Your task to perform on an android device: Search for seafood restaurants on Google Maps Image 0: 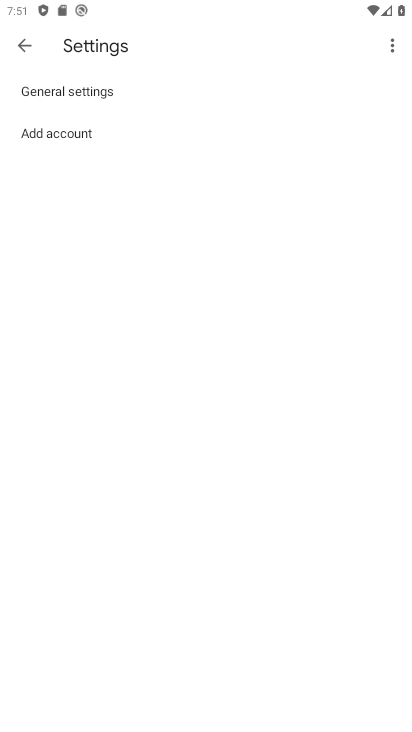
Step 0: press home button
Your task to perform on an android device: Search for seafood restaurants on Google Maps Image 1: 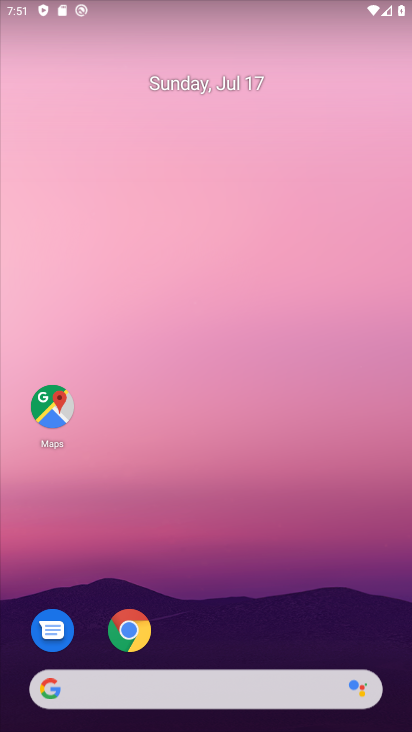
Step 1: click (45, 400)
Your task to perform on an android device: Search for seafood restaurants on Google Maps Image 2: 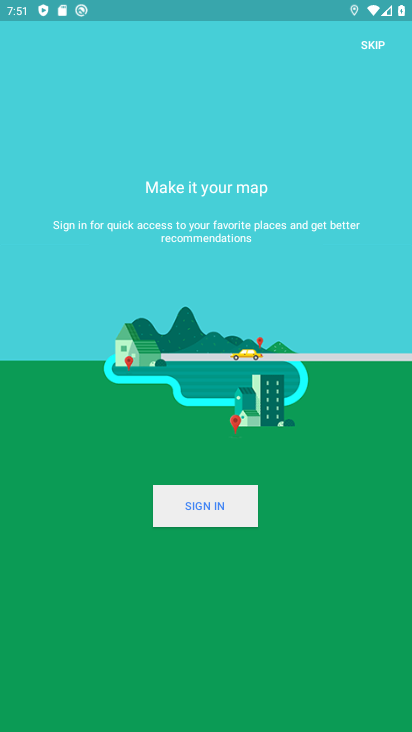
Step 2: click (221, 514)
Your task to perform on an android device: Search for seafood restaurants on Google Maps Image 3: 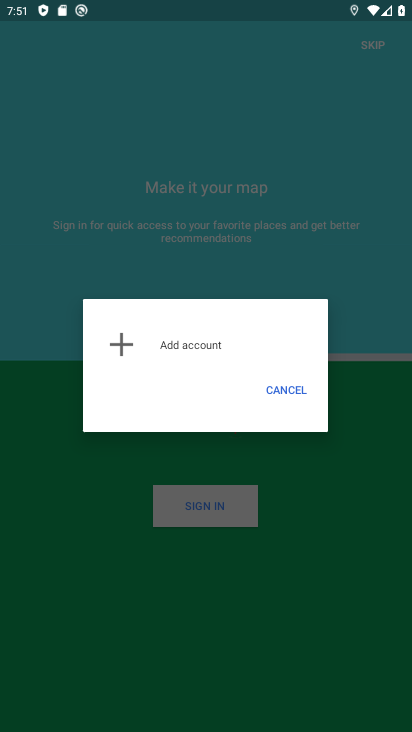
Step 3: click (378, 43)
Your task to perform on an android device: Search for seafood restaurants on Google Maps Image 4: 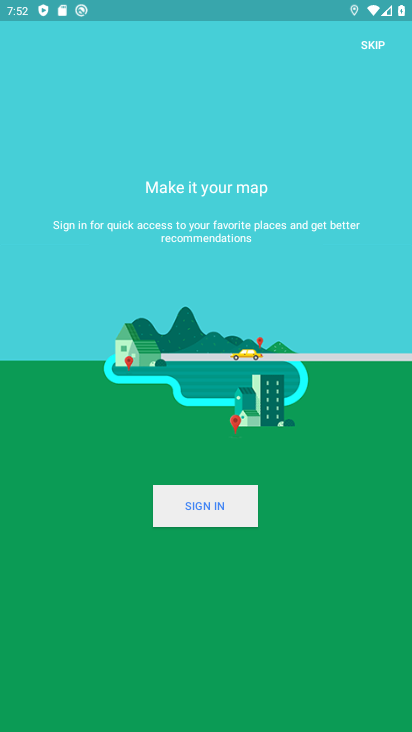
Step 4: click (376, 41)
Your task to perform on an android device: Search for seafood restaurants on Google Maps Image 5: 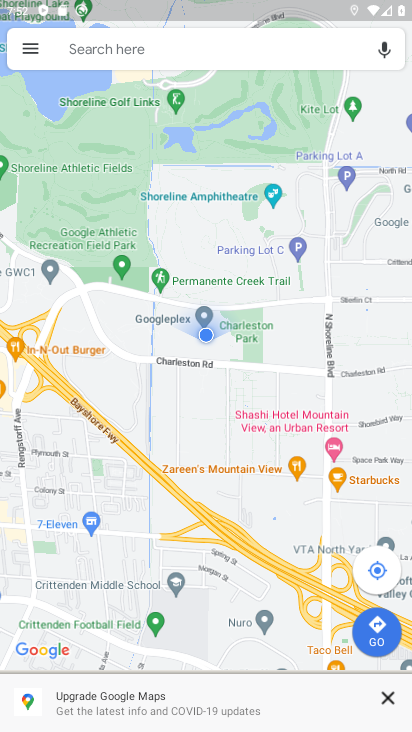
Step 5: click (88, 37)
Your task to perform on an android device: Search for seafood restaurants on Google Maps Image 6: 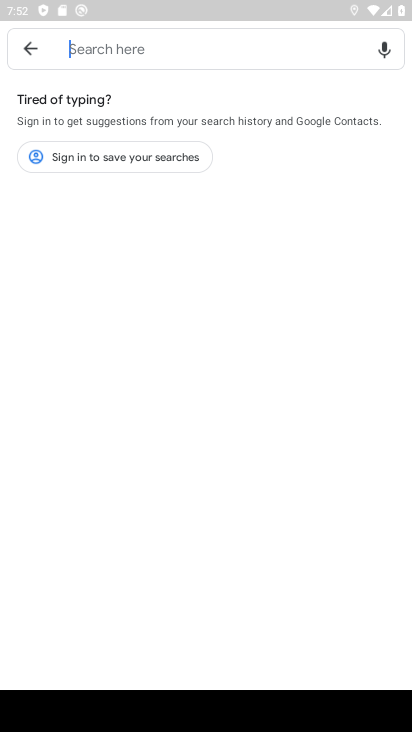
Step 6: type "seafood restaurants"
Your task to perform on an android device: Search for seafood restaurants on Google Maps Image 7: 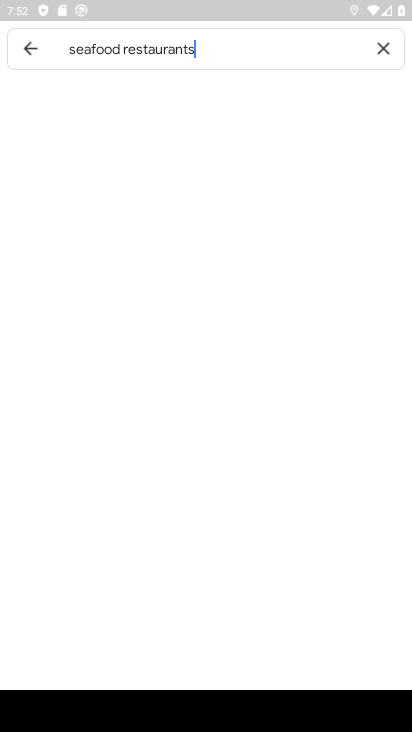
Step 7: type ""
Your task to perform on an android device: Search for seafood restaurants on Google Maps Image 8: 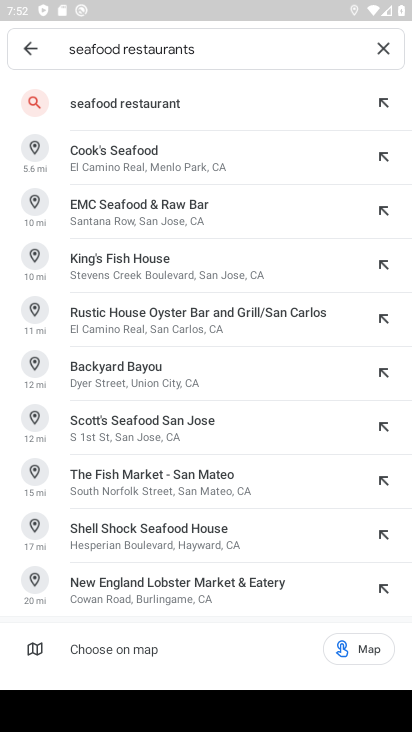
Step 8: click (113, 81)
Your task to perform on an android device: Search for seafood restaurants on Google Maps Image 9: 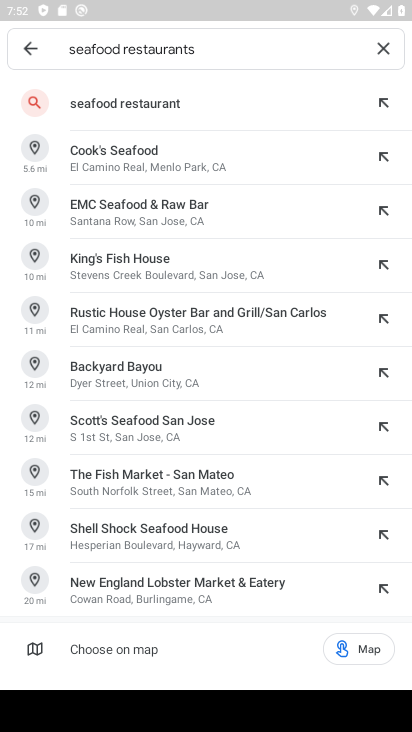
Step 9: click (119, 100)
Your task to perform on an android device: Search for seafood restaurants on Google Maps Image 10: 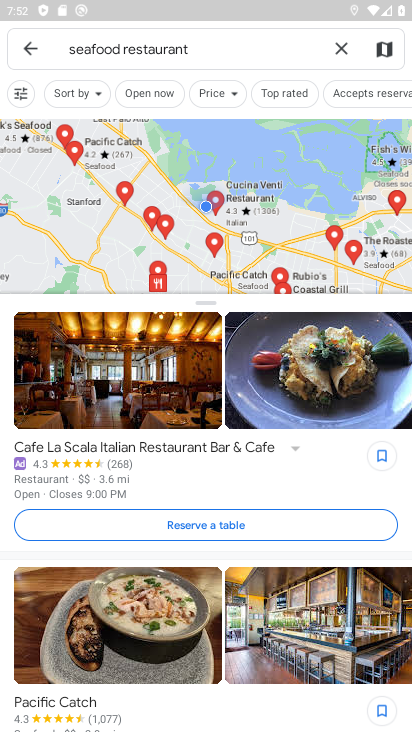
Step 10: task complete